Your task to perform on an android device: Open Google Image 0: 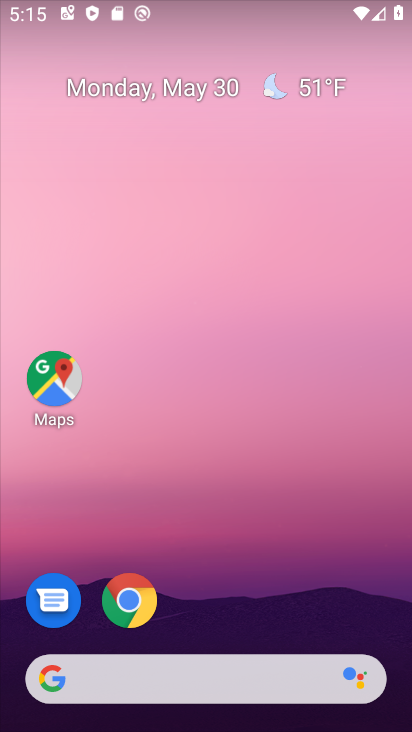
Step 0: drag from (268, 650) to (143, 5)
Your task to perform on an android device: Open Google Image 1: 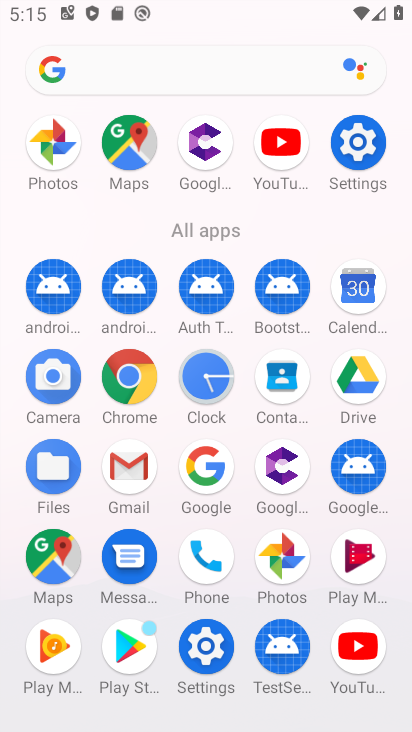
Step 1: click (200, 485)
Your task to perform on an android device: Open Google Image 2: 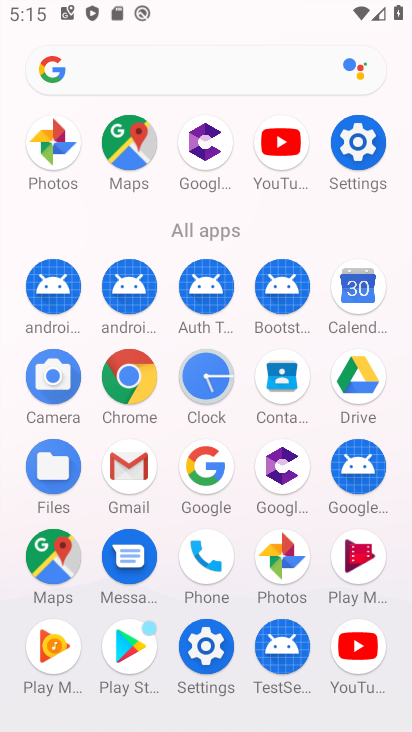
Step 2: click (200, 485)
Your task to perform on an android device: Open Google Image 3: 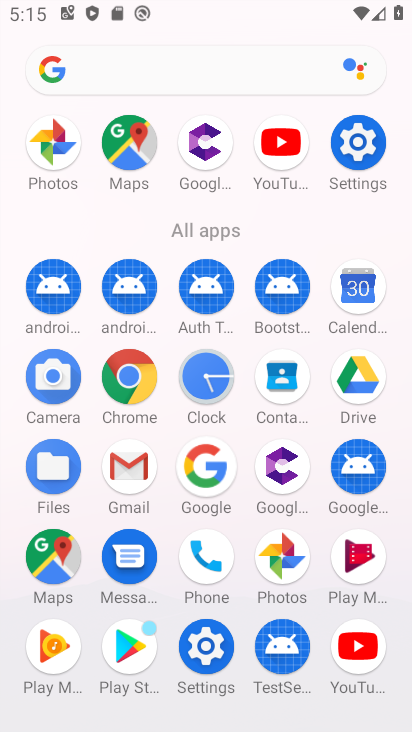
Step 3: click (200, 485)
Your task to perform on an android device: Open Google Image 4: 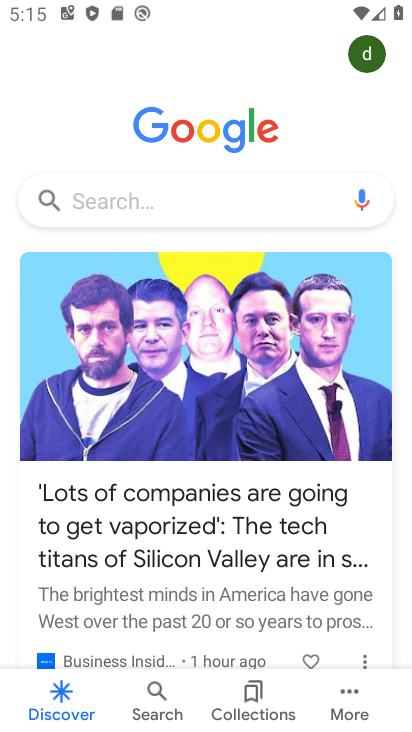
Step 4: task complete